Your task to perform on an android device: Open calendar and show me the second week of next month Image 0: 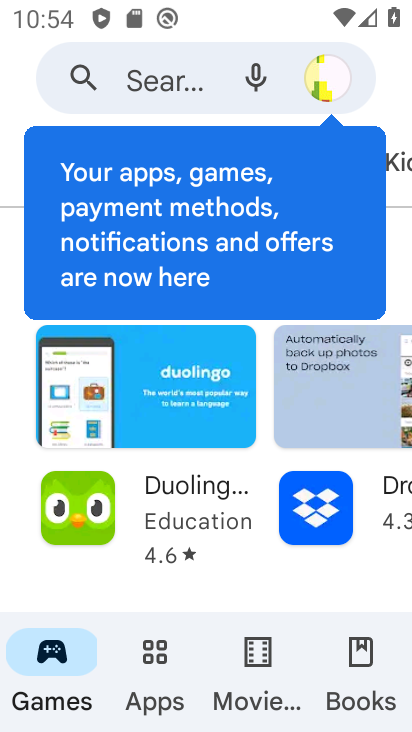
Step 0: press home button
Your task to perform on an android device: Open calendar and show me the second week of next month Image 1: 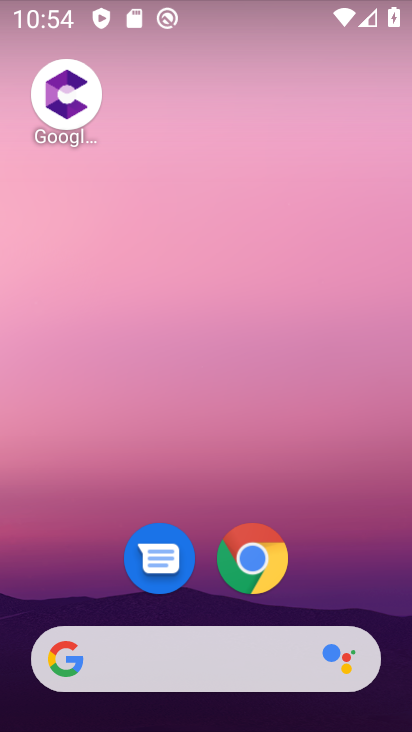
Step 1: drag from (375, 525) to (386, 95)
Your task to perform on an android device: Open calendar and show me the second week of next month Image 2: 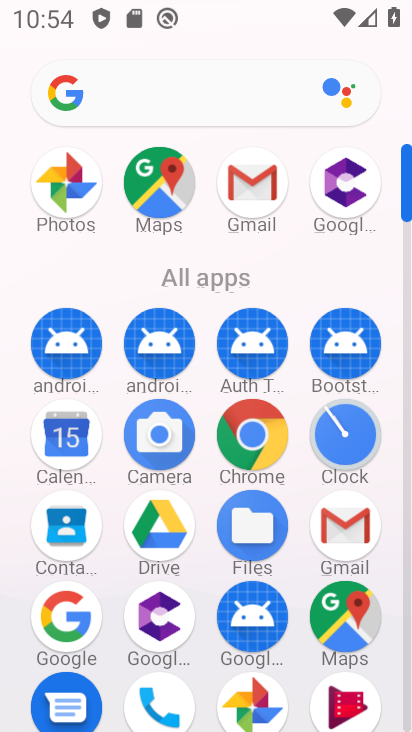
Step 2: click (44, 456)
Your task to perform on an android device: Open calendar and show me the second week of next month Image 3: 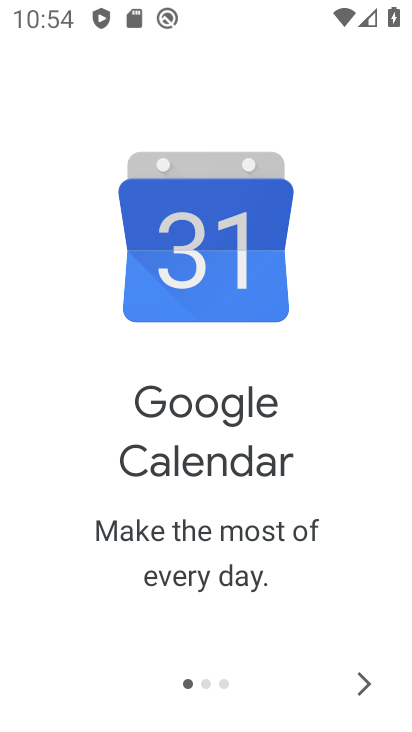
Step 3: click (364, 692)
Your task to perform on an android device: Open calendar and show me the second week of next month Image 4: 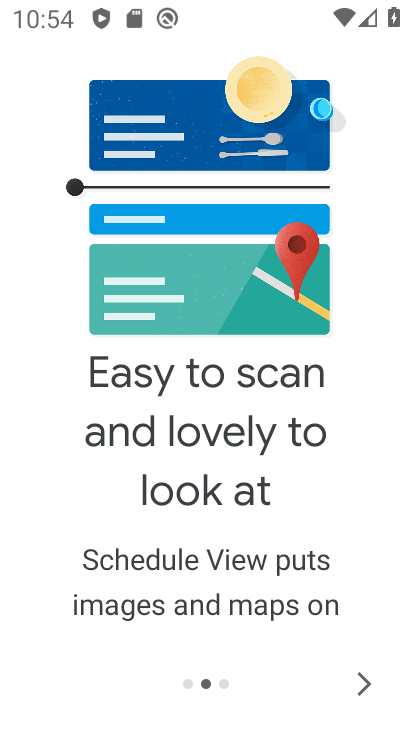
Step 4: click (371, 683)
Your task to perform on an android device: Open calendar and show me the second week of next month Image 5: 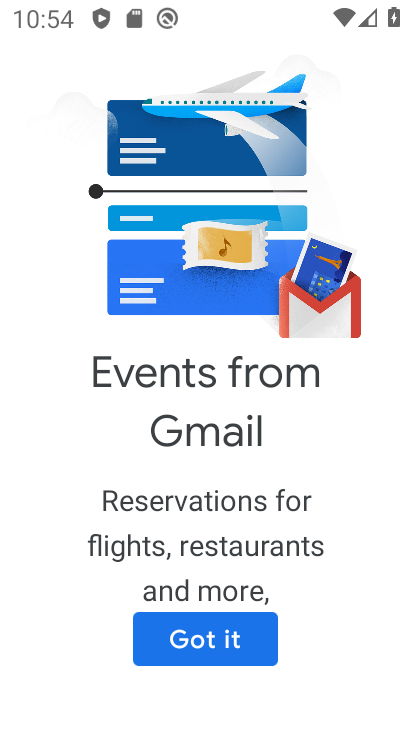
Step 5: click (249, 647)
Your task to perform on an android device: Open calendar and show me the second week of next month Image 6: 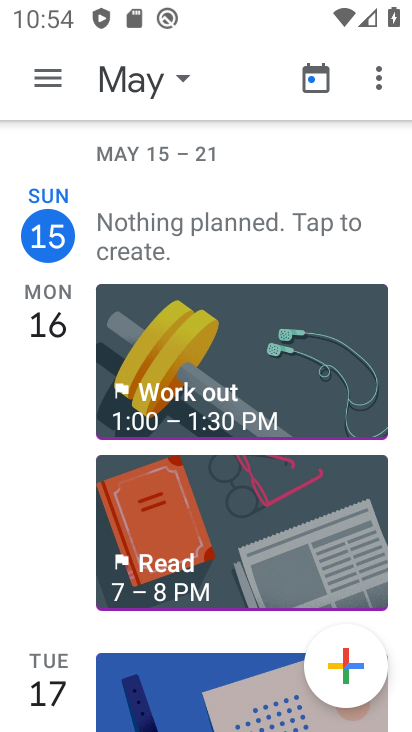
Step 6: click (181, 90)
Your task to perform on an android device: Open calendar and show me the second week of next month Image 7: 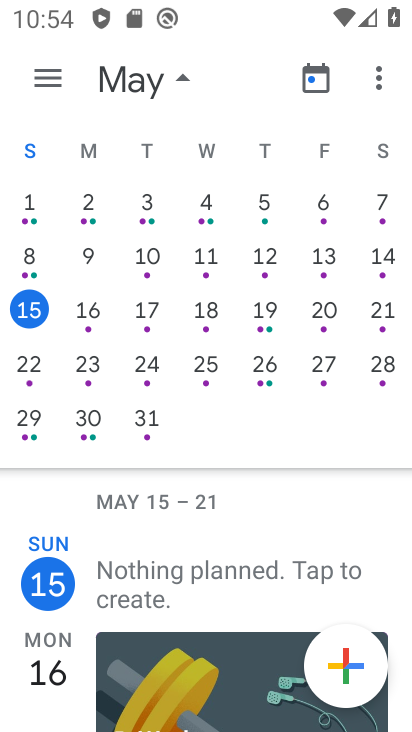
Step 7: drag from (392, 281) to (14, 248)
Your task to perform on an android device: Open calendar and show me the second week of next month Image 8: 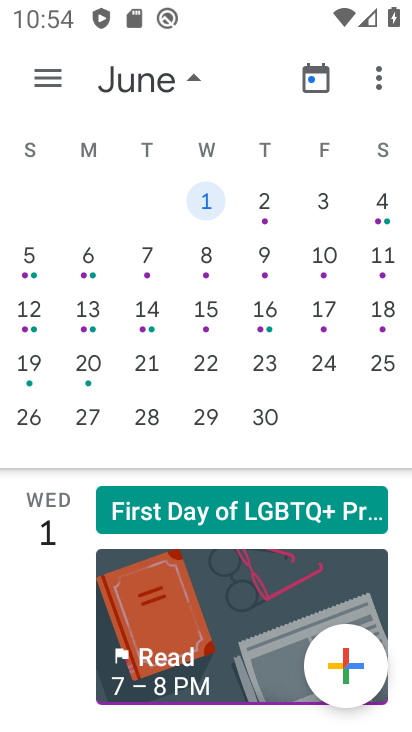
Step 8: click (84, 265)
Your task to perform on an android device: Open calendar and show me the second week of next month Image 9: 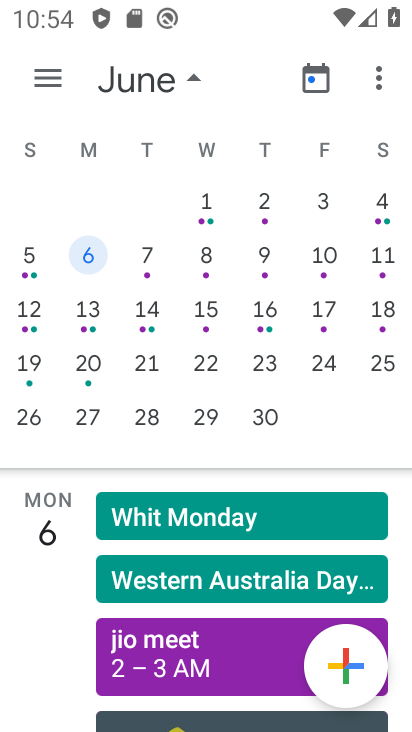
Step 9: task complete